Your task to perform on an android device: make emails show in primary in the gmail app Image 0: 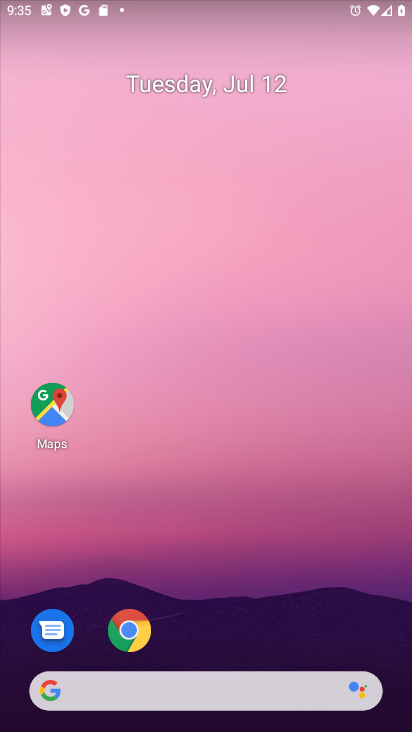
Step 0: drag from (221, 615) to (235, 83)
Your task to perform on an android device: make emails show in primary in the gmail app Image 1: 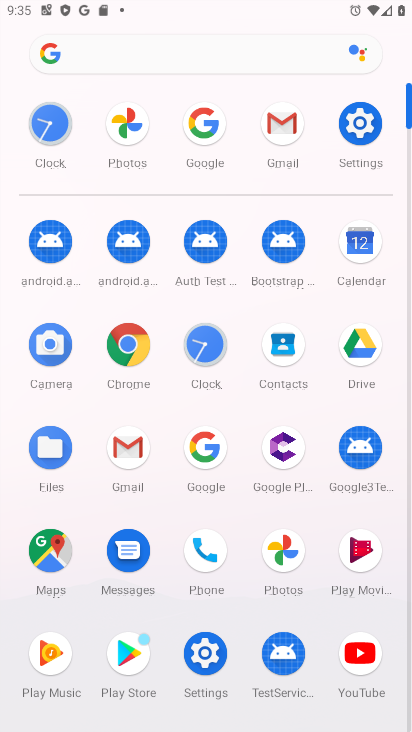
Step 1: click (287, 118)
Your task to perform on an android device: make emails show in primary in the gmail app Image 2: 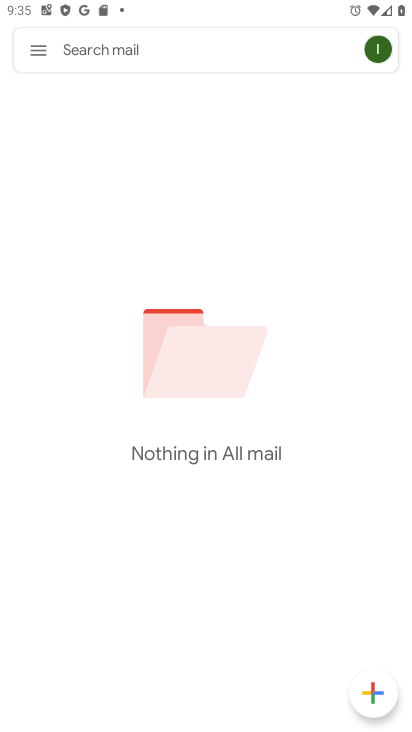
Step 2: click (34, 45)
Your task to perform on an android device: make emails show in primary in the gmail app Image 3: 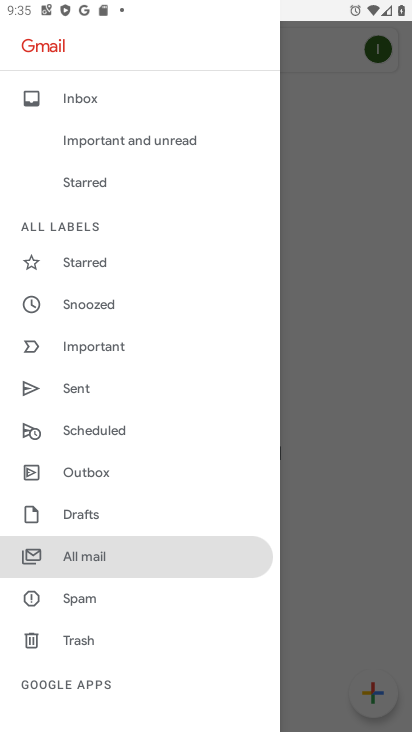
Step 3: drag from (101, 665) to (98, 194)
Your task to perform on an android device: make emails show in primary in the gmail app Image 4: 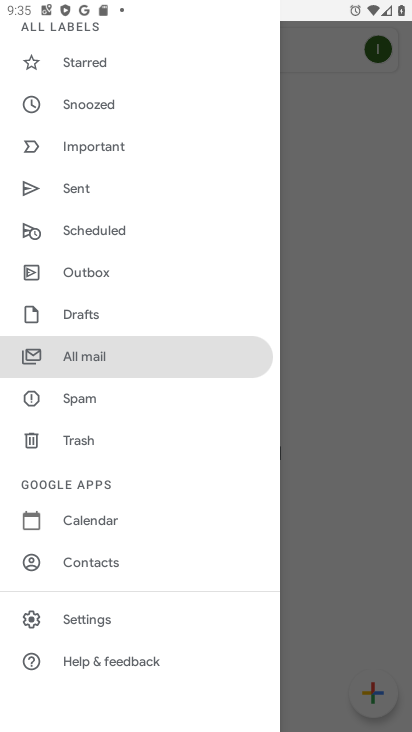
Step 4: click (79, 625)
Your task to perform on an android device: make emails show in primary in the gmail app Image 5: 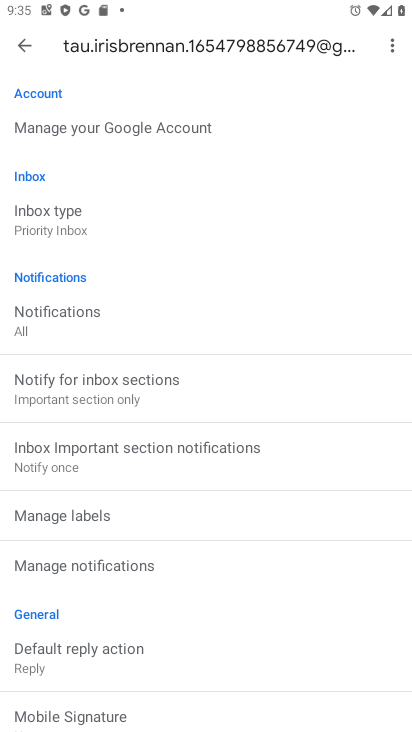
Step 5: click (59, 230)
Your task to perform on an android device: make emails show in primary in the gmail app Image 6: 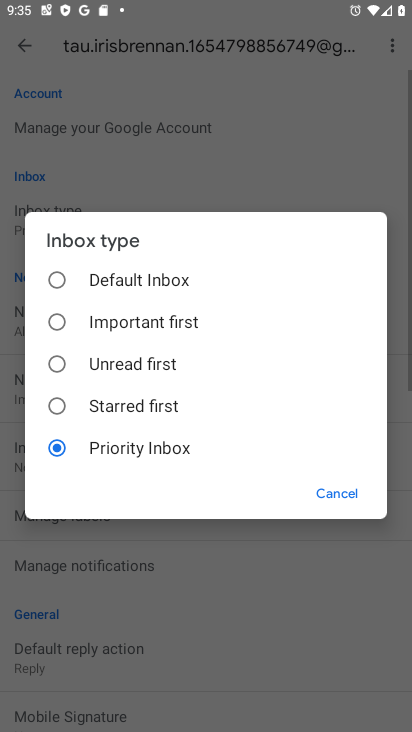
Step 6: click (64, 280)
Your task to perform on an android device: make emails show in primary in the gmail app Image 7: 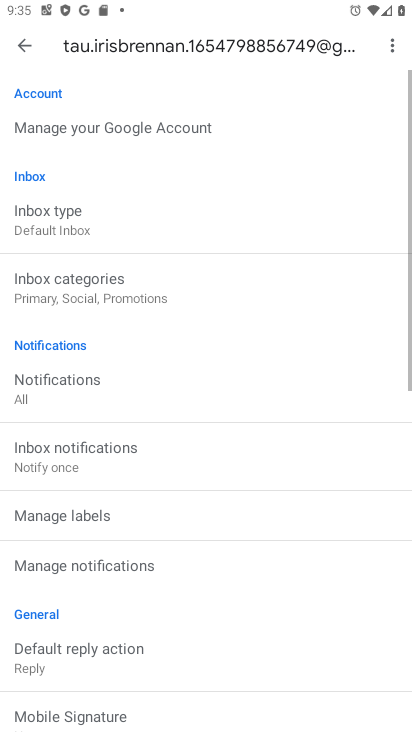
Step 7: click (51, 296)
Your task to perform on an android device: make emails show in primary in the gmail app Image 8: 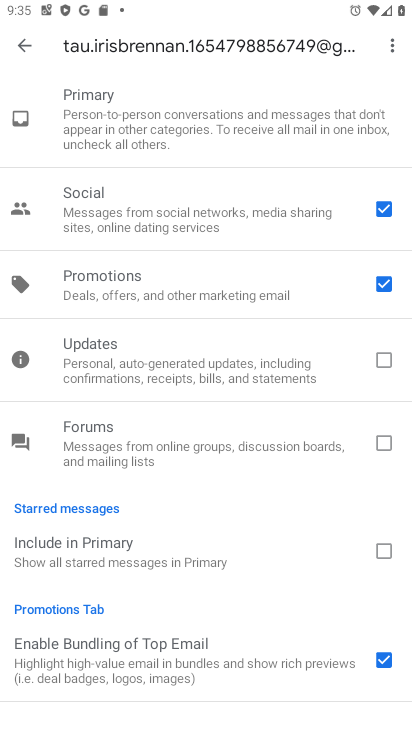
Step 8: click (383, 285)
Your task to perform on an android device: make emails show in primary in the gmail app Image 9: 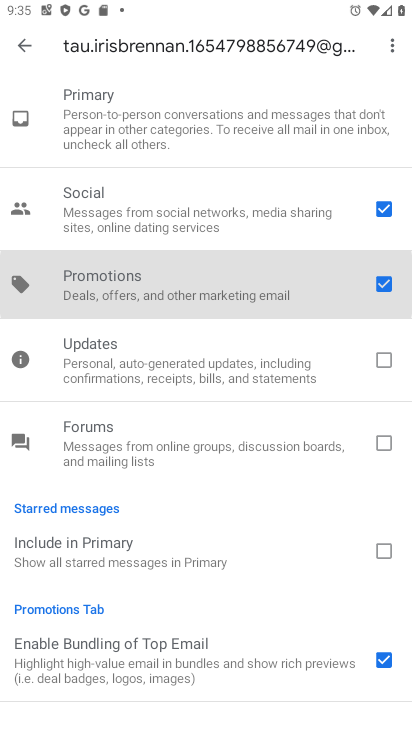
Step 9: click (382, 204)
Your task to perform on an android device: make emails show in primary in the gmail app Image 10: 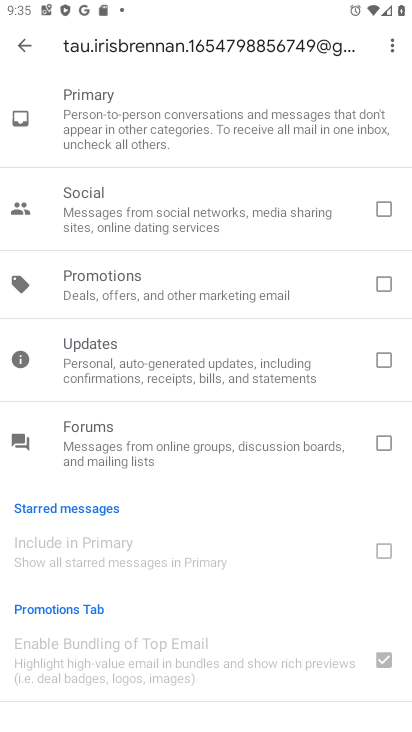
Step 10: task complete